Your task to perform on an android device: See recent photos Image 0: 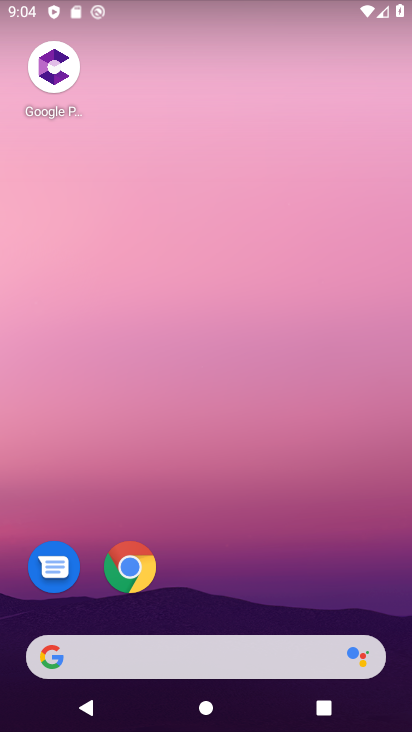
Step 0: drag from (400, 684) to (348, 311)
Your task to perform on an android device: See recent photos Image 1: 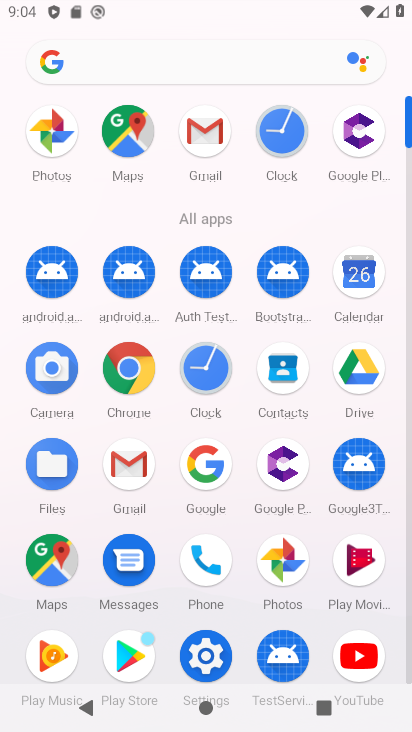
Step 1: click (53, 143)
Your task to perform on an android device: See recent photos Image 2: 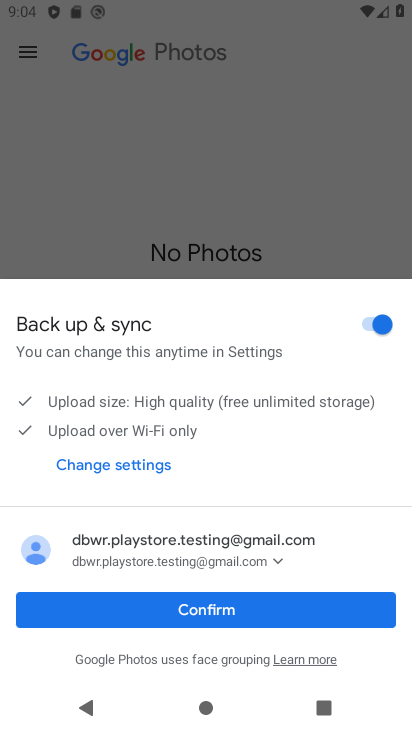
Step 2: click (250, 615)
Your task to perform on an android device: See recent photos Image 3: 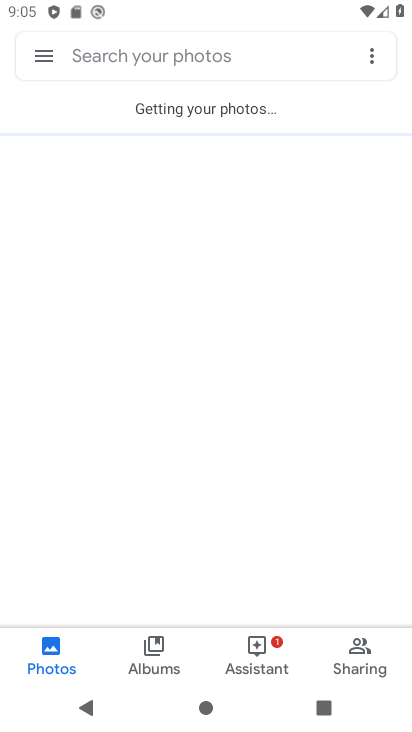
Step 3: click (48, 652)
Your task to perform on an android device: See recent photos Image 4: 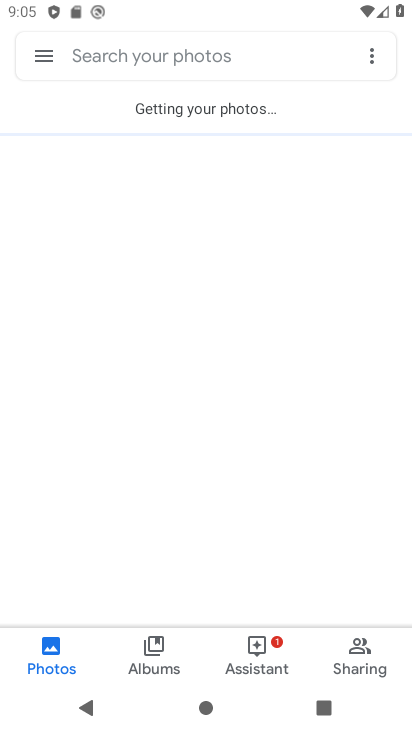
Step 4: click (48, 652)
Your task to perform on an android device: See recent photos Image 5: 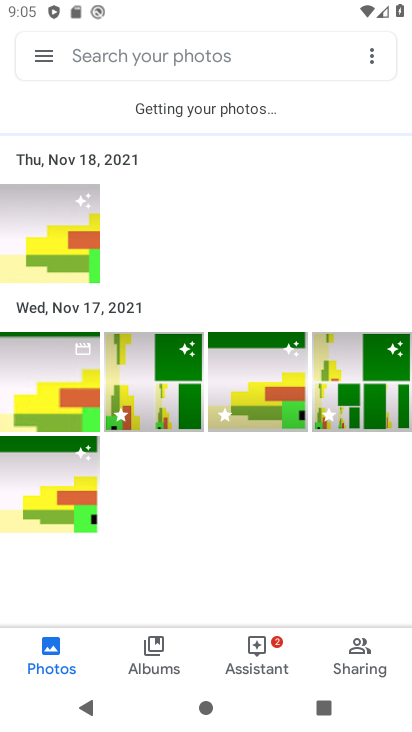
Step 5: click (45, 256)
Your task to perform on an android device: See recent photos Image 6: 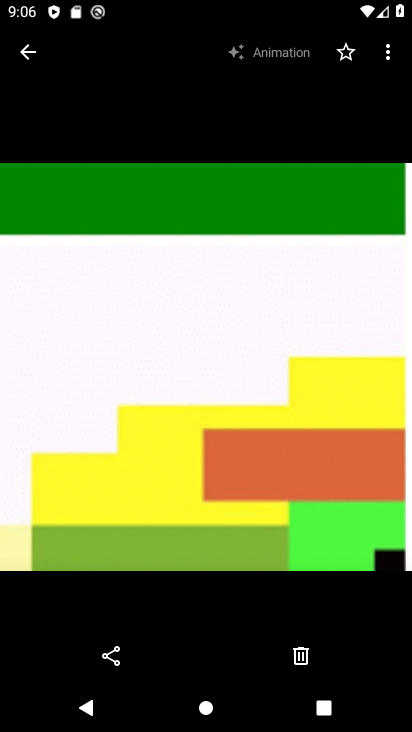
Step 6: task complete